Your task to perform on an android device: Go to battery settings Image 0: 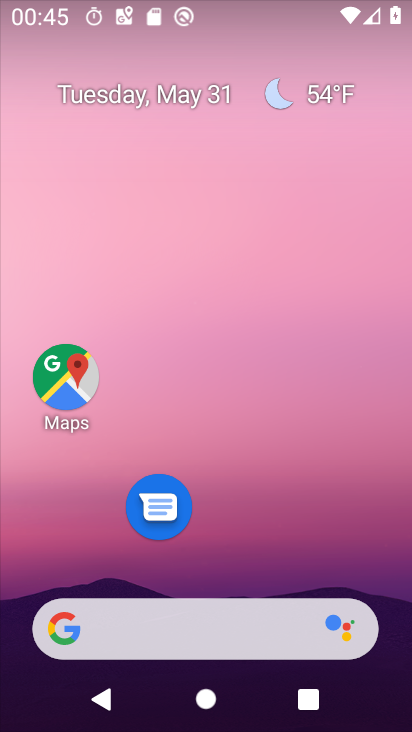
Step 0: drag from (248, 662) to (242, 5)
Your task to perform on an android device: Go to battery settings Image 1: 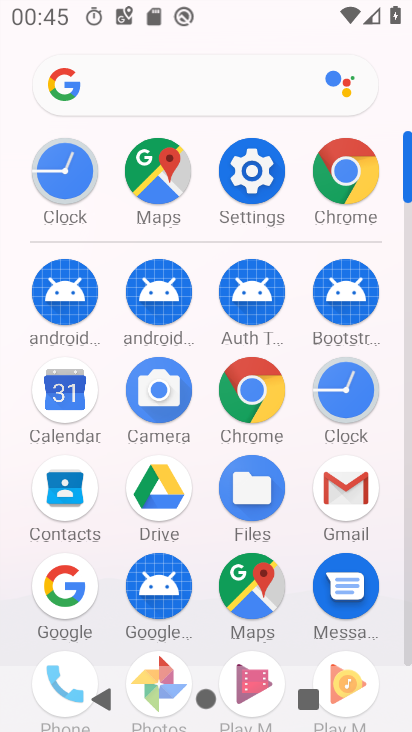
Step 1: click (259, 177)
Your task to perform on an android device: Go to battery settings Image 2: 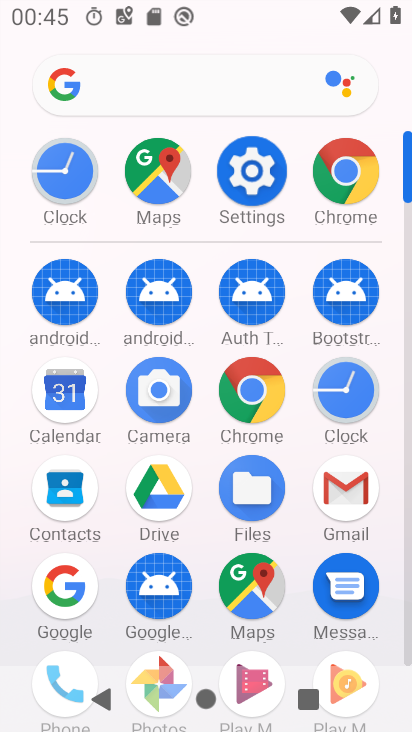
Step 2: click (263, 177)
Your task to perform on an android device: Go to battery settings Image 3: 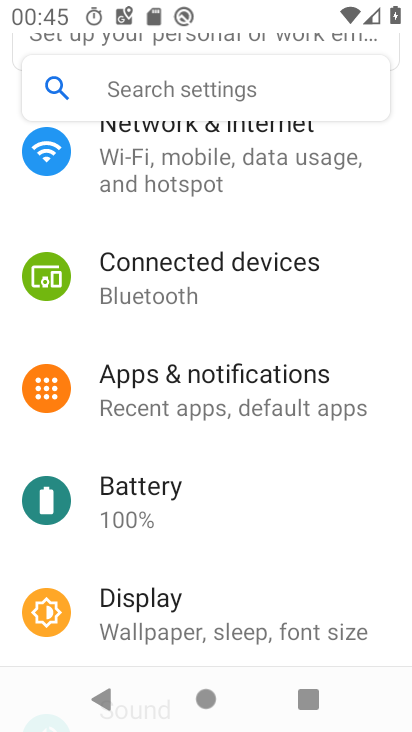
Step 3: click (127, 516)
Your task to perform on an android device: Go to battery settings Image 4: 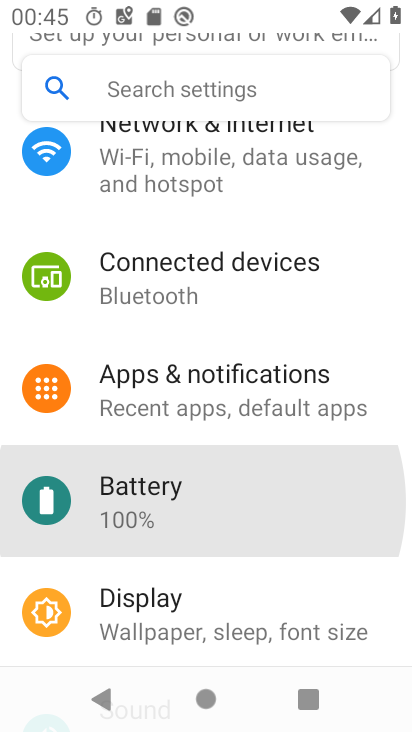
Step 4: click (124, 512)
Your task to perform on an android device: Go to battery settings Image 5: 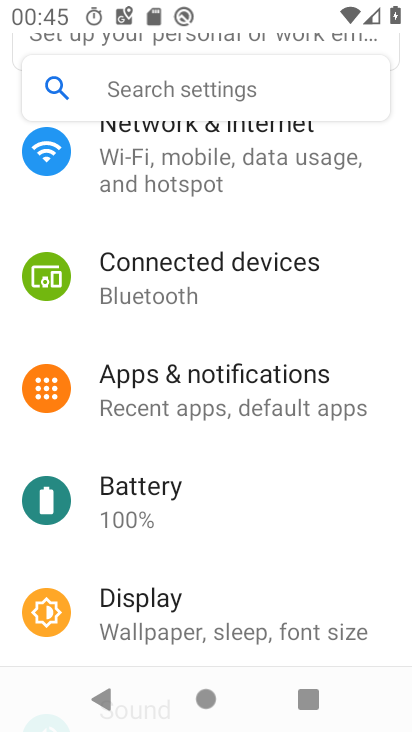
Step 5: click (118, 508)
Your task to perform on an android device: Go to battery settings Image 6: 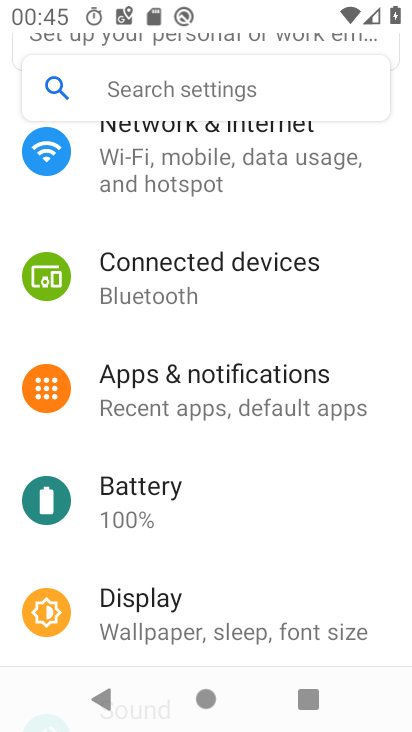
Step 6: click (114, 508)
Your task to perform on an android device: Go to battery settings Image 7: 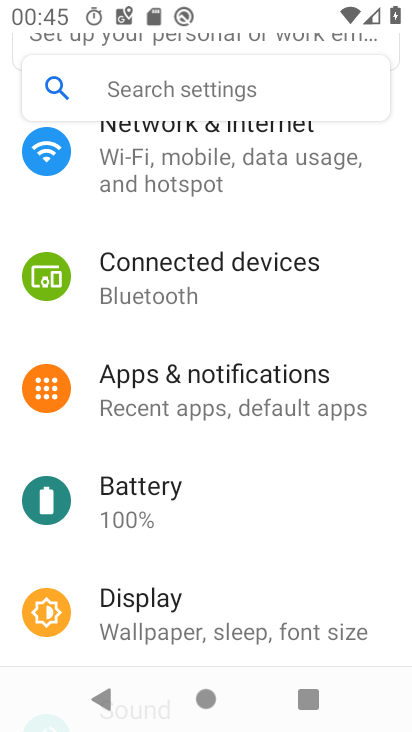
Step 7: click (113, 508)
Your task to perform on an android device: Go to battery settings Image 8: 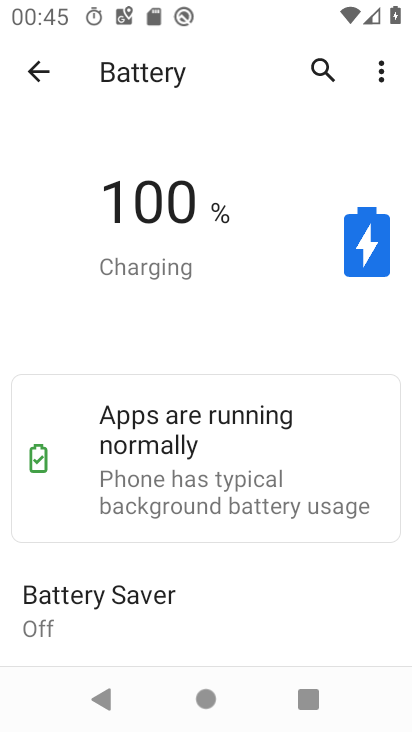
Step 8: task complete